Your task to perform on an android device: set the timer Image 0: 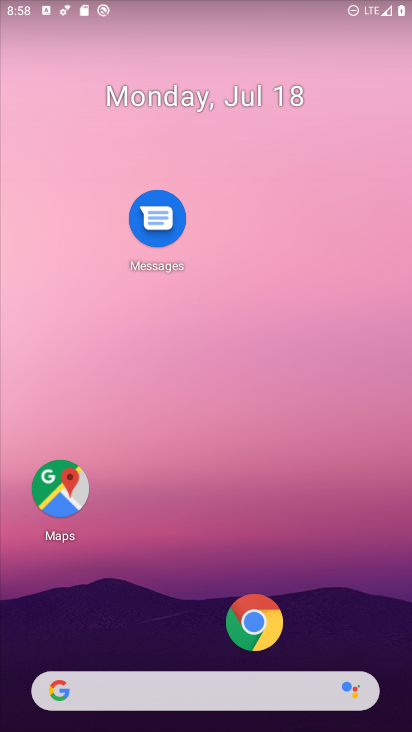
Step 0: drag from (121, 709) to (164, 102)
Your task to perform on an android device: set the timer Image 1: 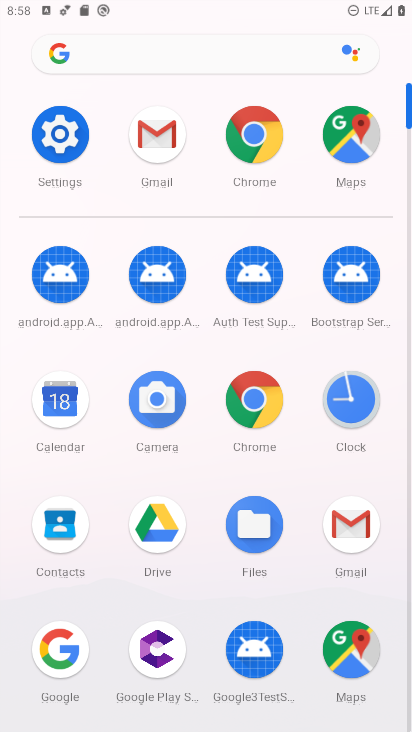
Step 1: click (374, 421)
Your task to perform on an android device: set the timer Image 2: 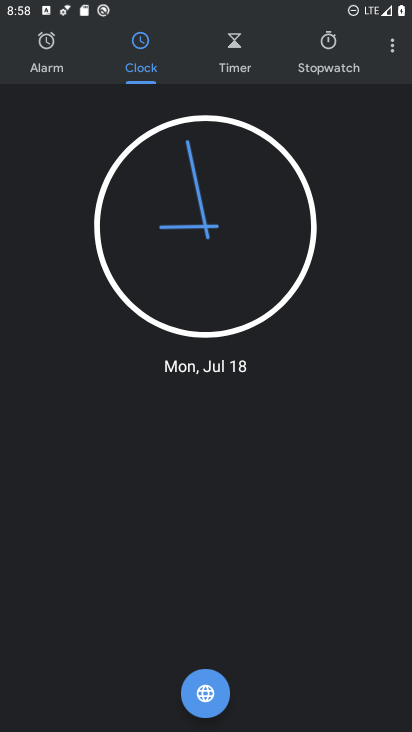
Step 2: click (239, 67)
Your task to perform on an android device: set the timer Image 3: 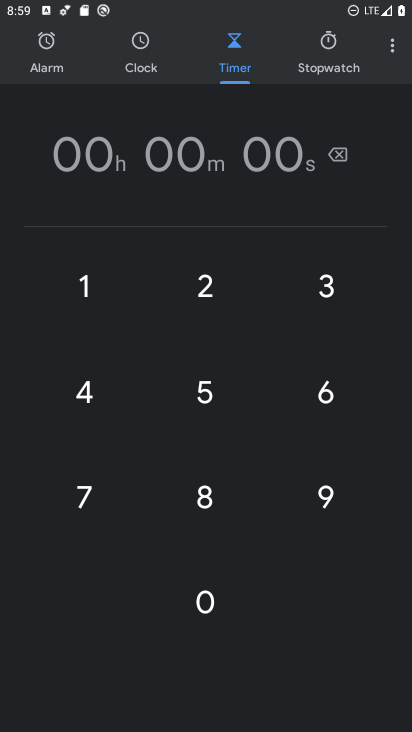
Step 3: click (199, 288)
Your task to perform on an android device: set the timer Image 4: 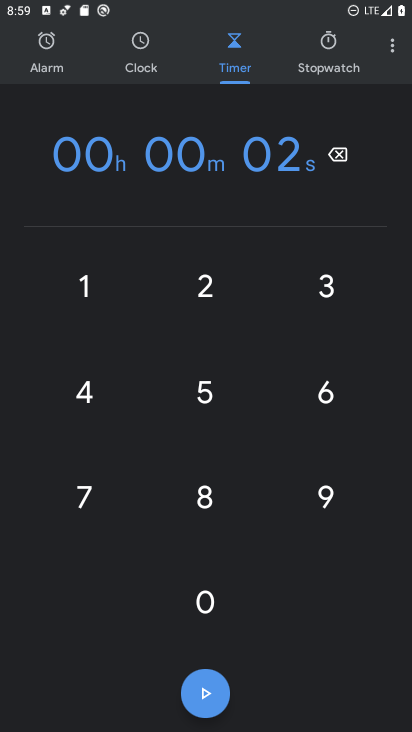
Step 4: click (201, 699)
Your task to perform on an android device: set the timer Image 5: 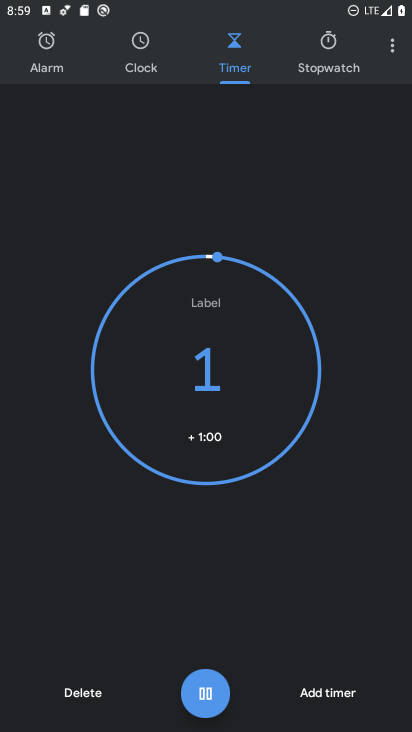
Step 5: task complete